Your task to perform on an android device: Do I have any events tomorrow? Image 0: 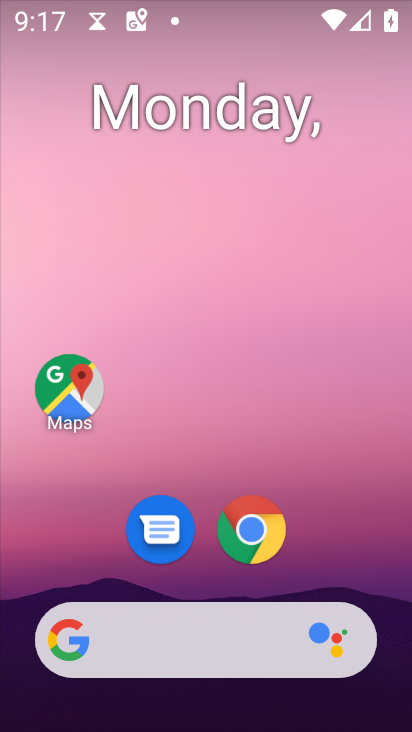
Step 0: drag from (306, 695) to (158, 162)
Your task to perform on an android device: Do I have any events tomorrow? Image 1: 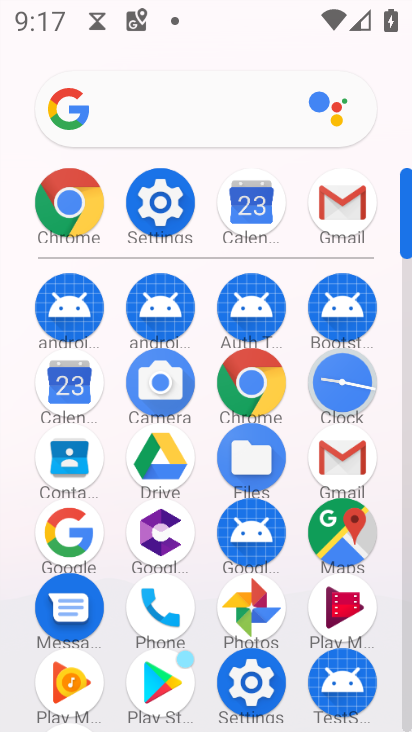
Step 1: click (66, 384)
Your task to perform on an android device: Do I have any events tomorrow? Image 2: 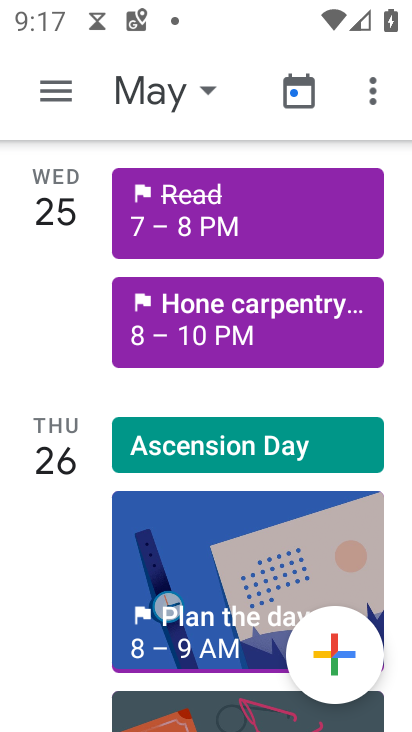
Step 2: click (145, 225)
Your task to perform on an android device: Do I have any events tomorrow? Image 3: 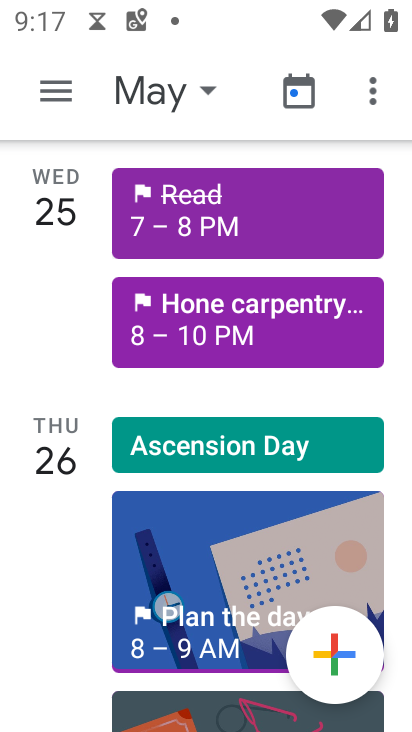
Step 3: click (145, 225)
Your task to perform on an android device: Do I have any events tomorrow? Image 4: 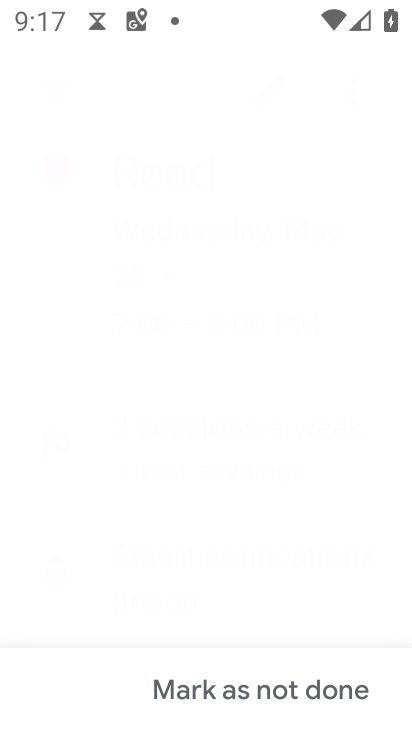
Step 4: click (148, 224)
Your task to perform on an android device: Do I have any events tomorrow? Image 5: 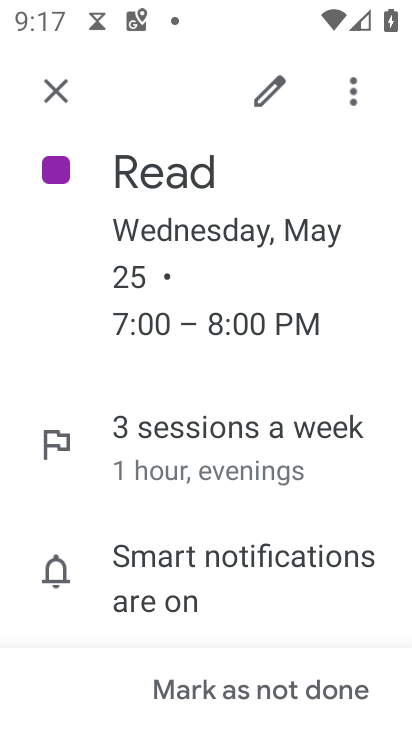
Step 5: click (148, 224)
Your task to perform on an android device: Do I have any events tomorrow? Image 6: 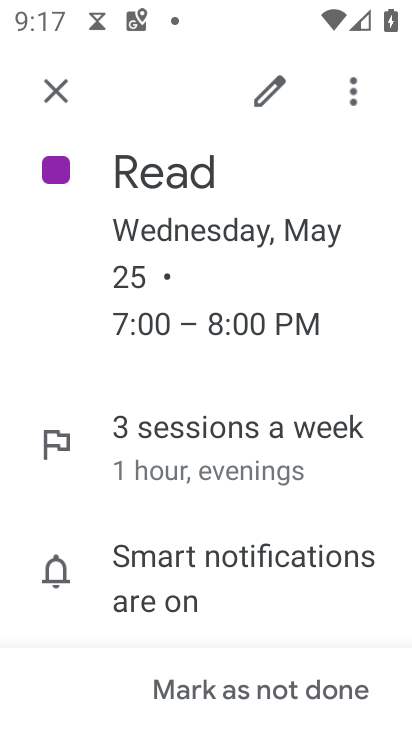
Step 6: task complete